Your task to perform on an android device: Go to Reddit.com Image 0: 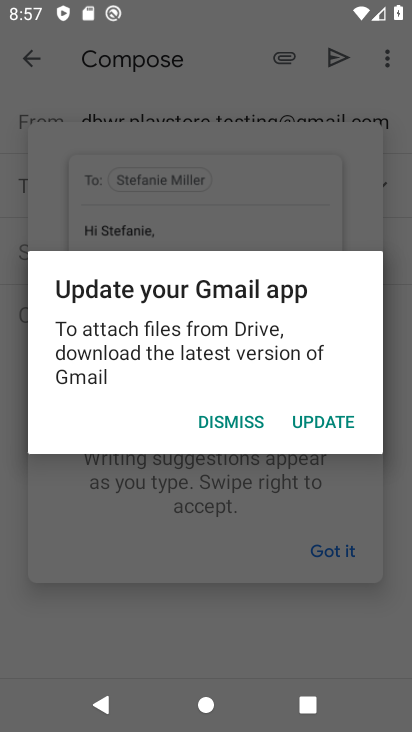
Step 0: press home button
Your task to perform on an android device: Go to Reddit.com Image 1: 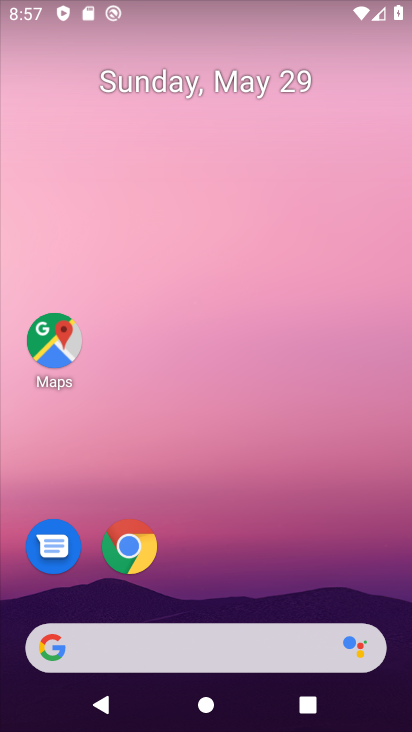
Step 1: click (208, 632)
Your task to perform on an android device: Go to Reddit.com Image 2: 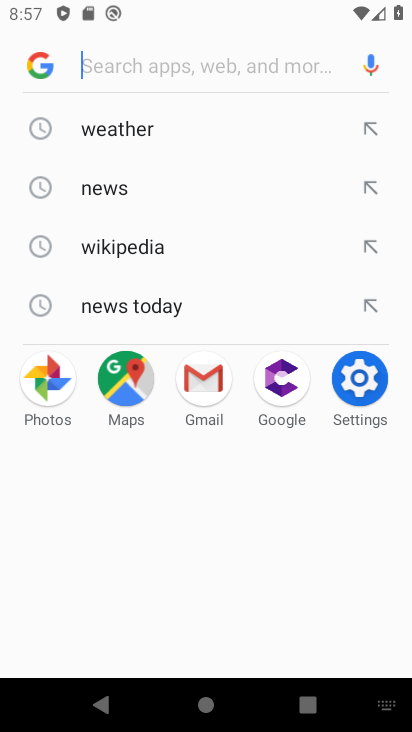
Step 2: type "Reddit.com"
Your task to perform on an android device: Go to Reddit.com Image 3: 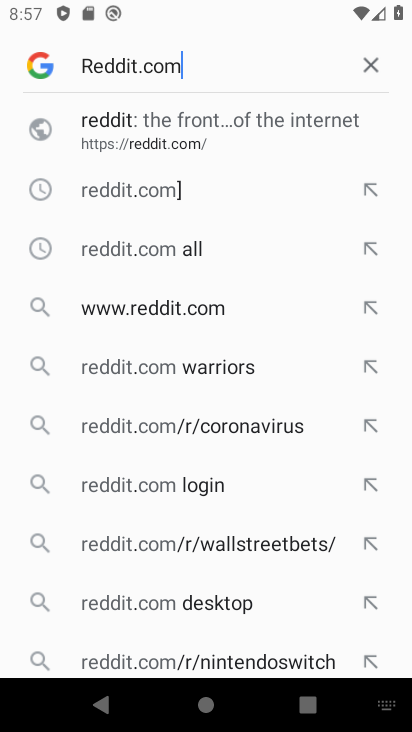
Step 3: click (262, 149)
Your task to perform on an android device: Go to Reddit.com Image 4: 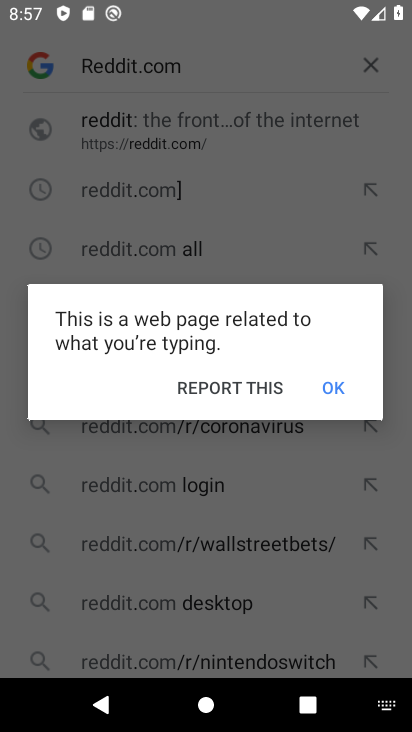
Step 4: click (349, 391)
Your task to perform on an android device: Go to Reddit.com Image 5: 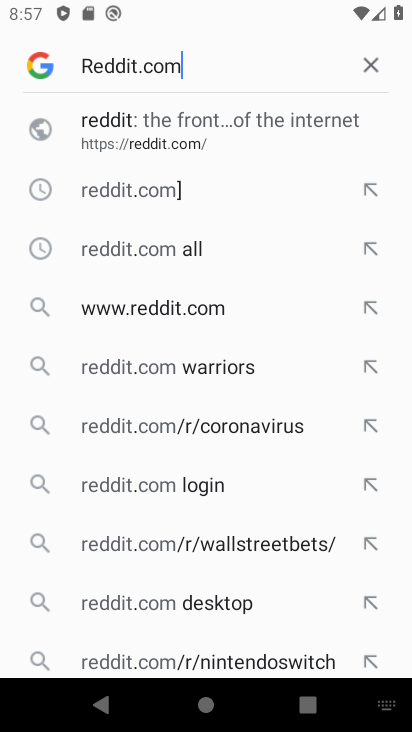
Step 5: click (250, 165)
Your task to perform on an android device: Go to Reddit.com Image 6: 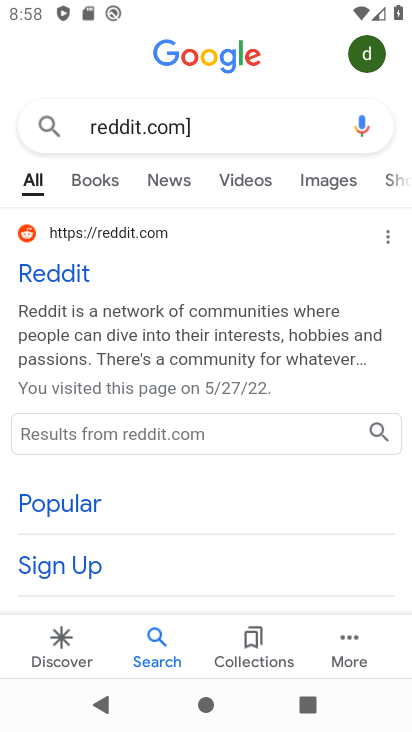
Step 6: click (76, 281)
Your task to perform on an android device: Go to Reddit.com Image 7: 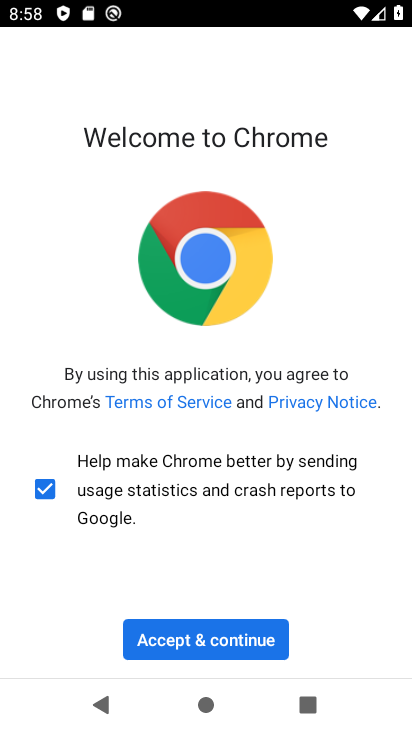
Step 7: click (218, 651)
Your task to perform on an android device: Go to Reddit.com Image 8: 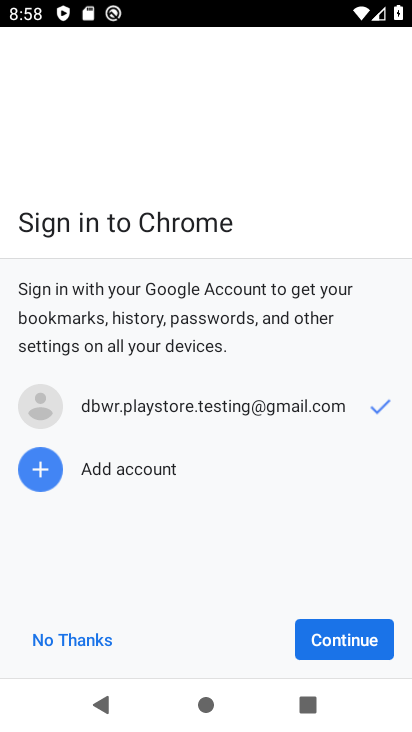
Step 8: click (353, 648)
Your task to perform on an android device: Go to Reddit.com Image 9: 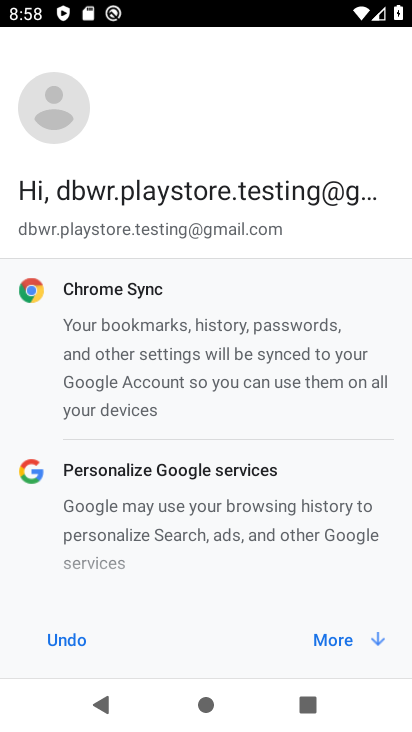
Step 9: click (353, 648)
Your task to perform on an android device: Go to Reddit.com Image 10: 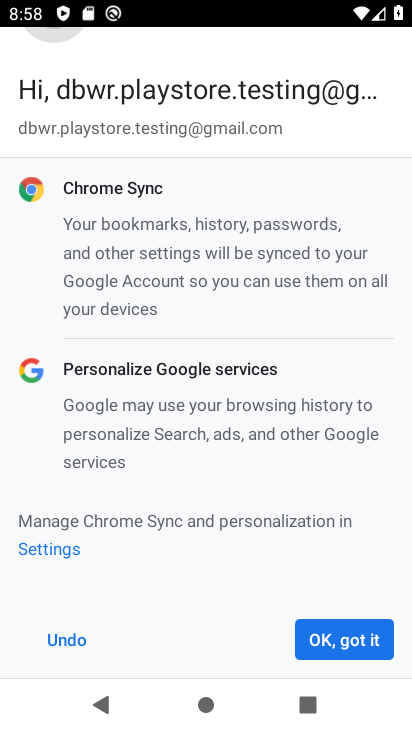
Step 10: click (353, 648)
Your task to perform on an android device: Go to Reddit.com Image 11: 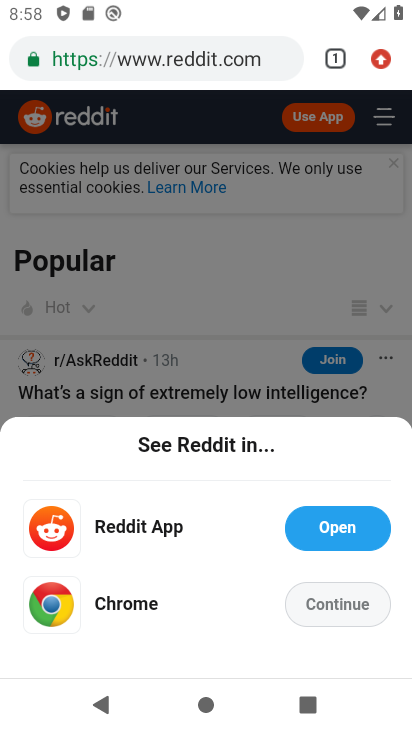
Step 11: click (342, 613)
Your task to perform on an android device: Go to Reddit.com Image 12: 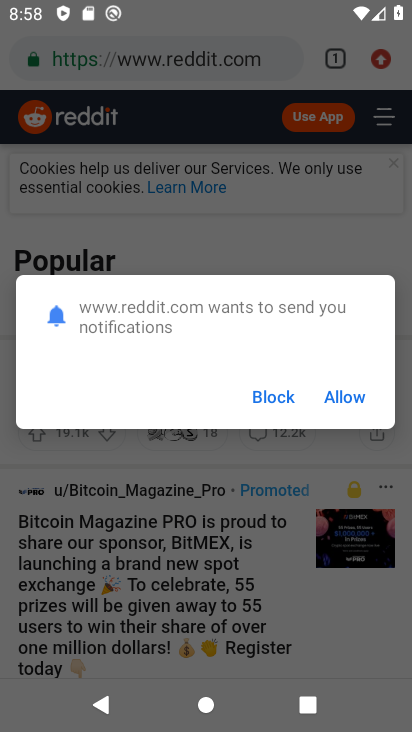
Step 12: click (353, 397)
Your task to perform on an android device: Go to Reddit.com Image 13: 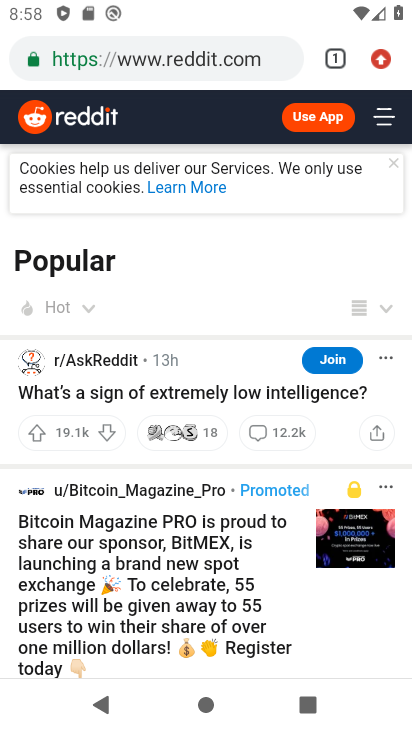
Step 13: task complete